Your task to perform on an android device: Go to Reddit.com Image 0: 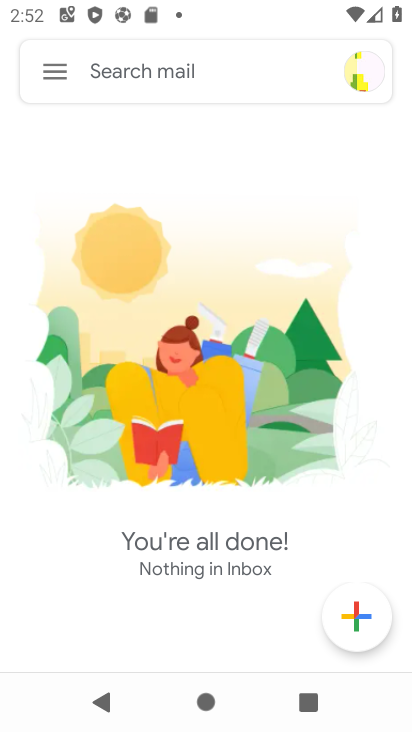
Step 0: press home button
Your task to perform on an android device: Go to Reddit.com Image 1: 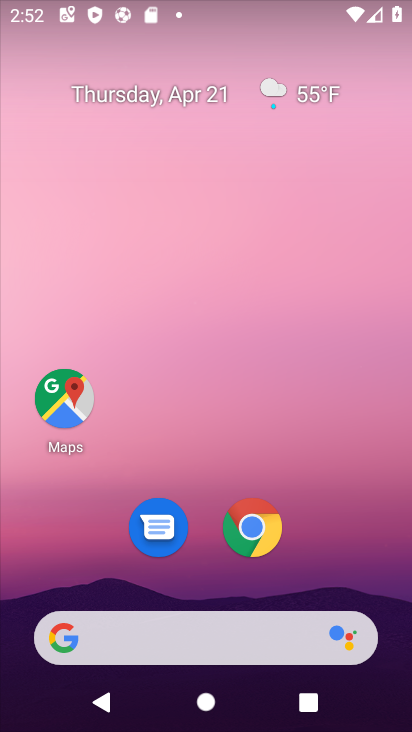
Step 1: click (253, 527)
Your task to perform on an android device: Go to Reddit.com Image 2: 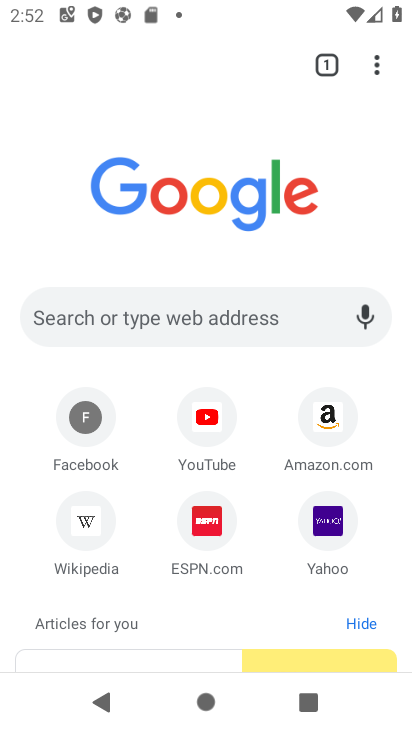
Step 2: click (233, 309)
Your task to perform on an android device: Go to Reddit.com Image 3: 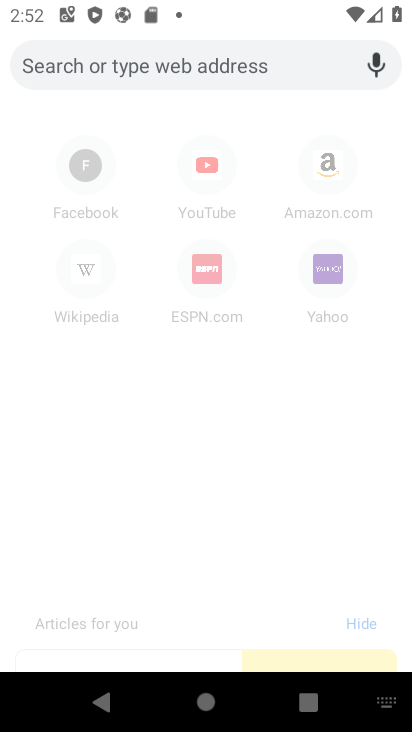
Step 3: type "reddit.com"
Your task to perform on an android device: Go to Reddit.com Image 4: 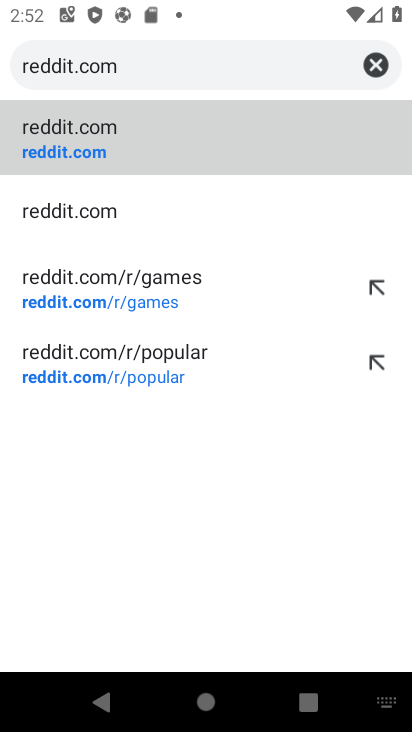
Step 4: click (66, 151)
Your task to perform on an android device: Go to Reddit.com Image 5: 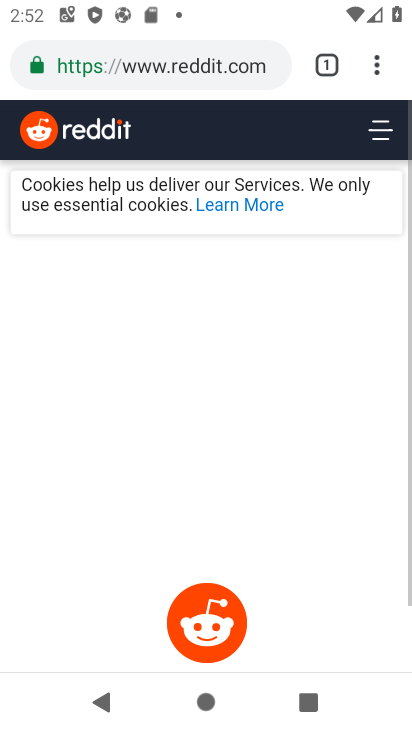
Step 5: task complete